Your task to perform on an android device: toggle wifi Image 0: 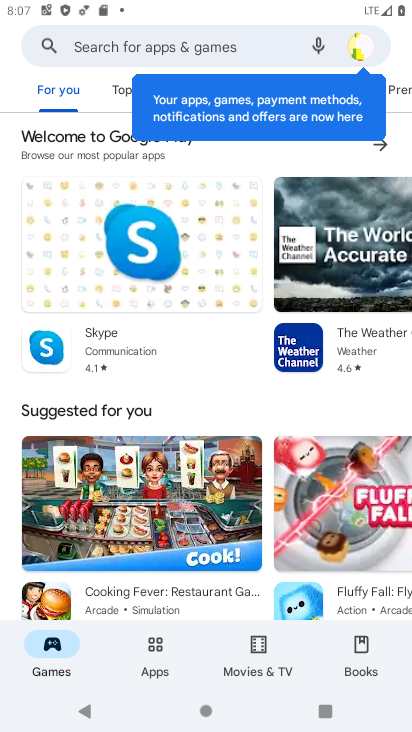
Step 0: press home button
Your task to perform on an android device: toggle wifi Image 1: 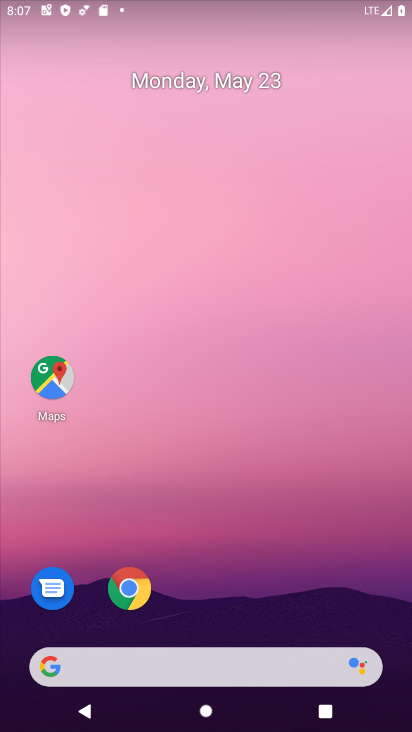
Step 1: drag from (390, 674) to (343, 19)
Your task to perform on an android device: toggle wifi Image 2: 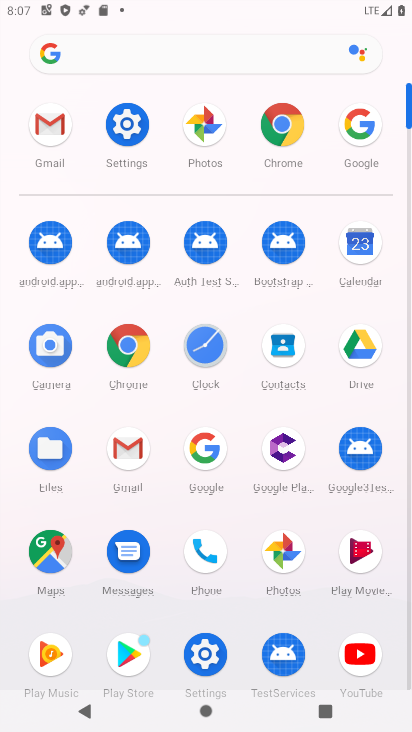
Step 2: click (114, 121)
Your task to perform on an android device: toggle wifi Image 3: 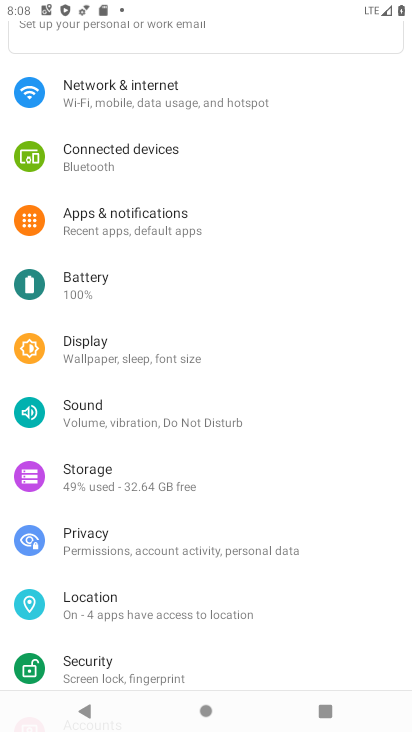
Step 3: click (138, 90)
Your task to perform on an android device: toggle wifi Image 4: 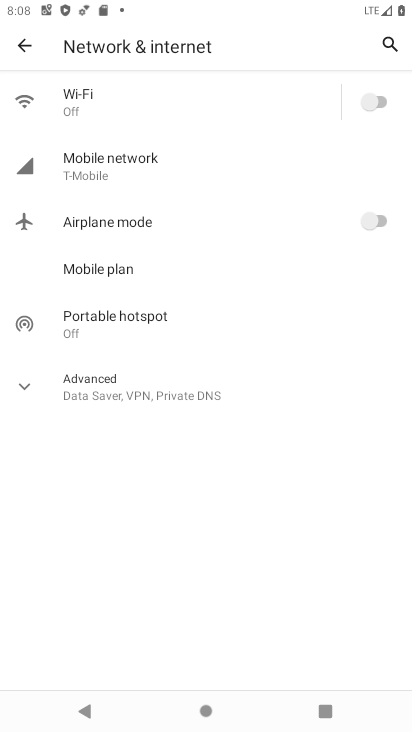
Step 4: click (108, 93)
Your task to perform on an android device: toggle wifi Image 5: 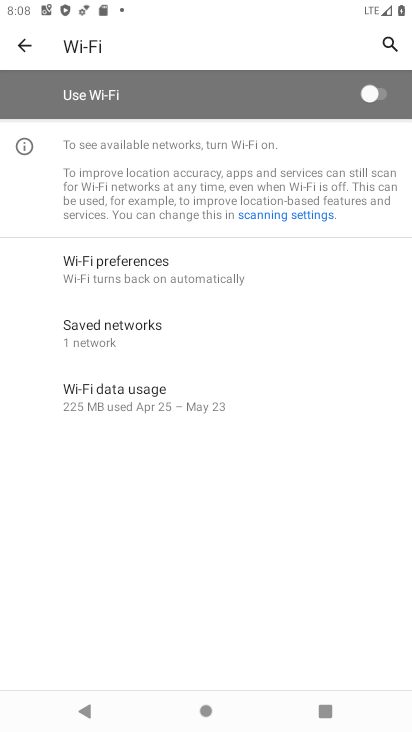
Step 5: click (383, 91)
Your task to perform on an android device: toggle wifi Image 6: 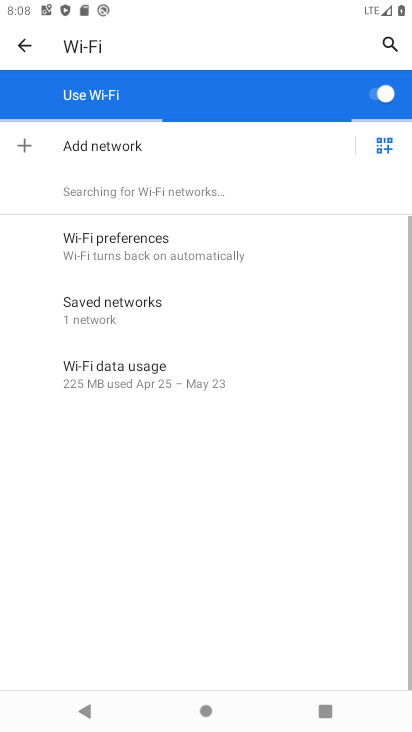
Step 6: task complete